Your task to perform on an android device: turn off wifi Image 0: 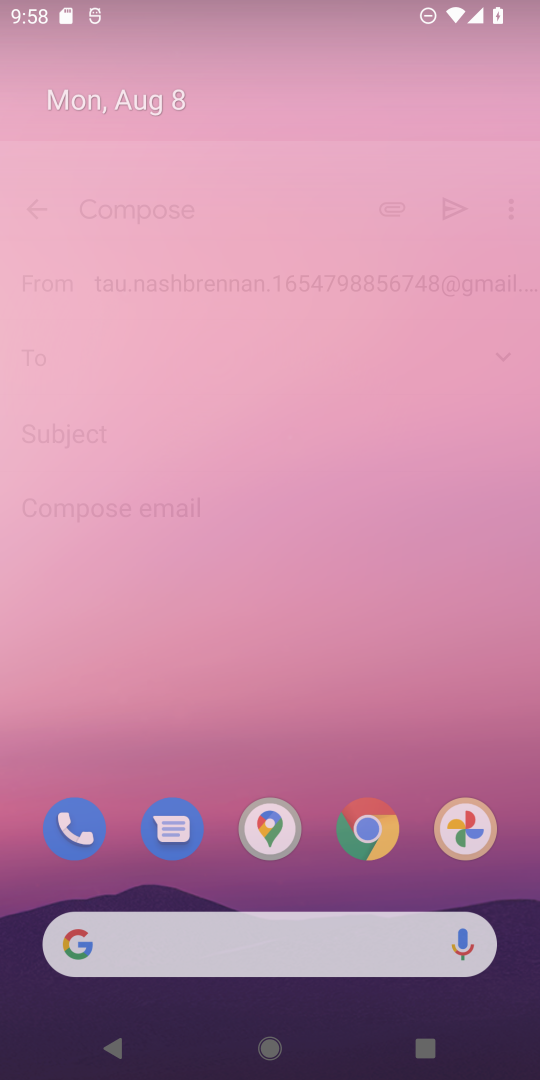
Step 0: press home button
Your task to perform on an android device: turn off wifi Image 1: 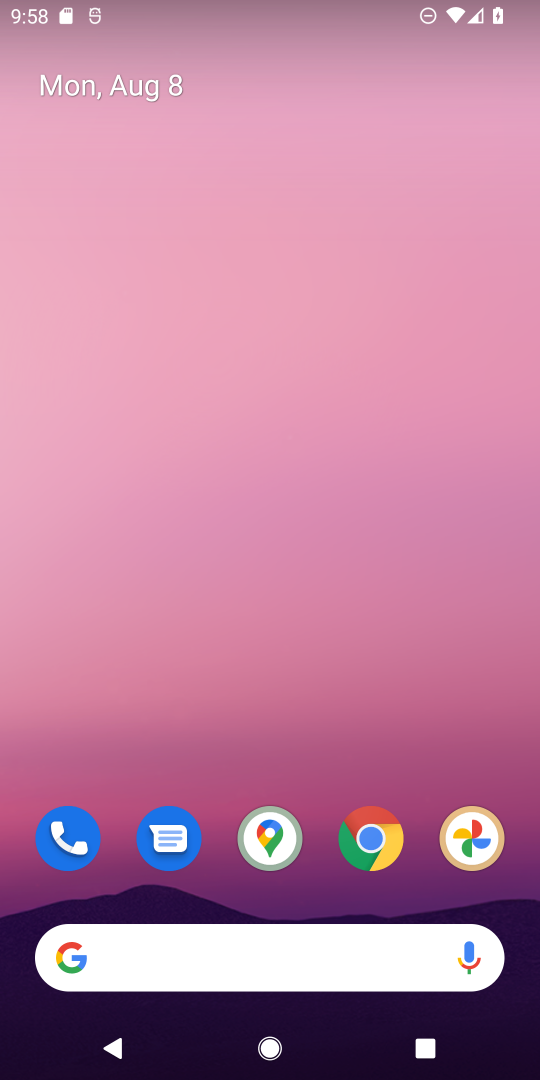
Step 1: drag from (202, 892) to (237, 134)
Your task to perform on an android device: turn off wifi Image 2: 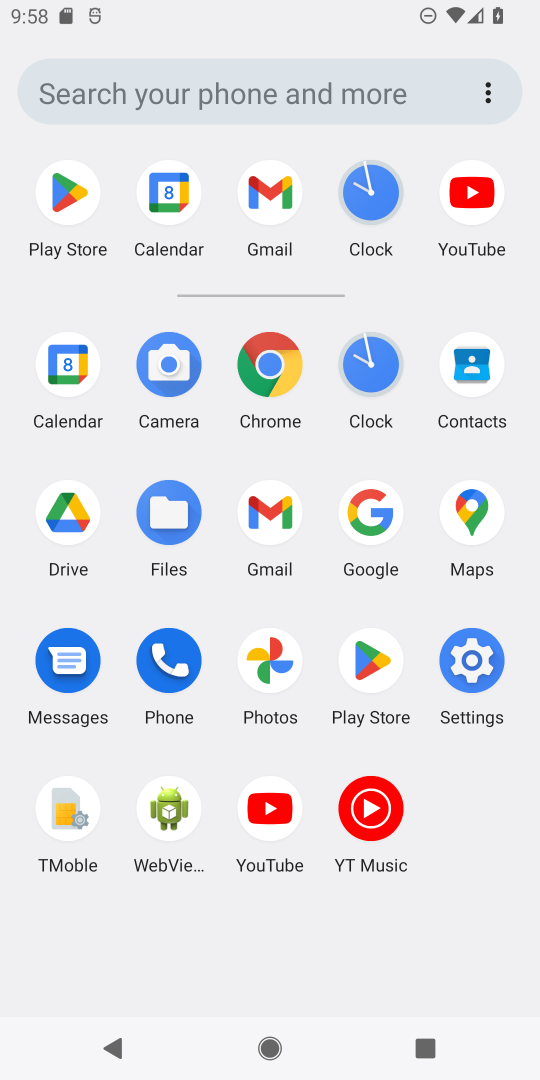
Step 2: click (470, 656)
Your task to perform on an android device: turn off wifi Image 3: 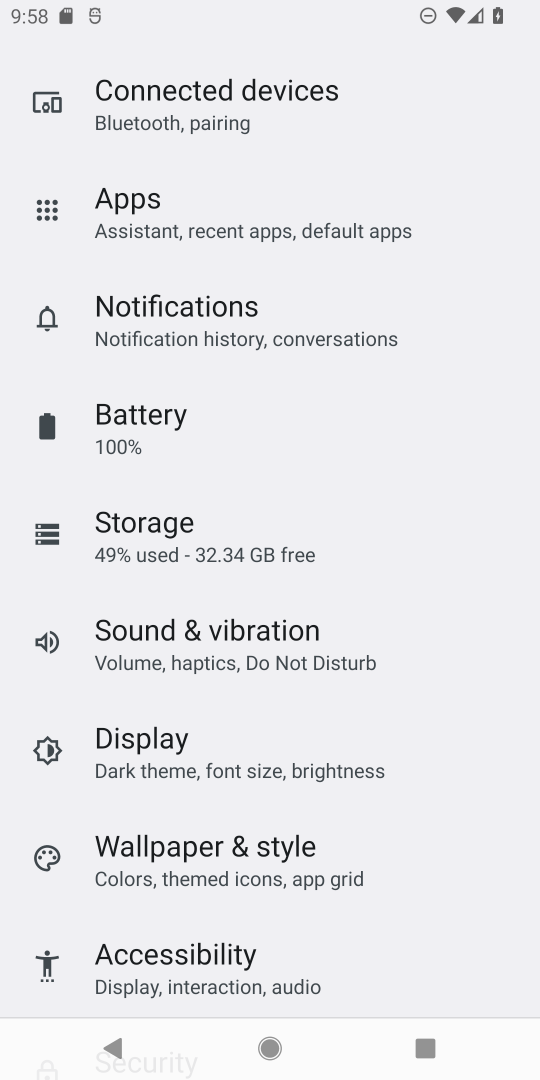
Step 3: drag from (392, 172) to (178, 999)
Your task to perform on an android device: turn off wifi Image 4: 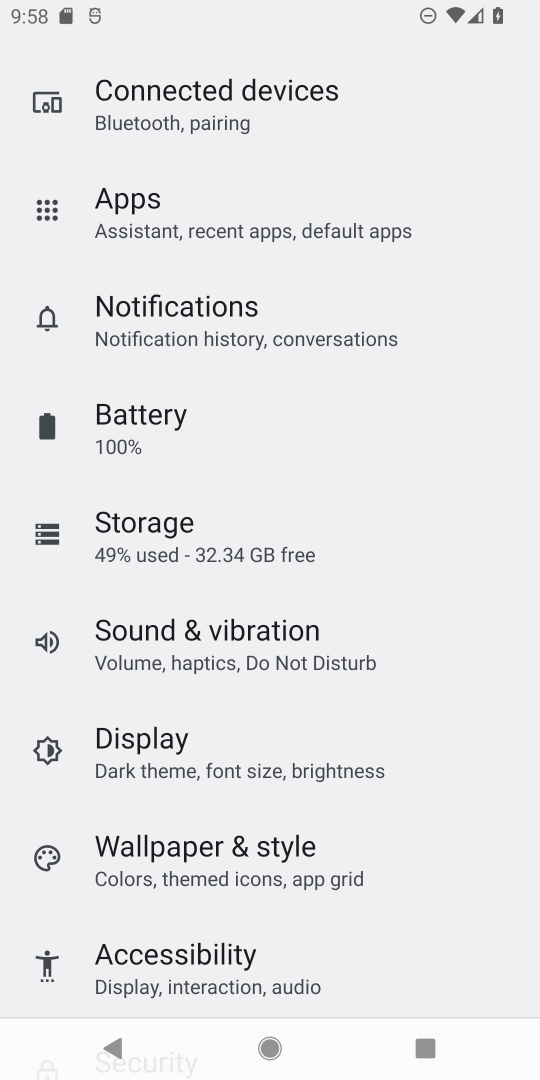
Step 4: drag from (401, 228) to (251, 998)
Your task to perform on an android device: turn off wifi Image 5: 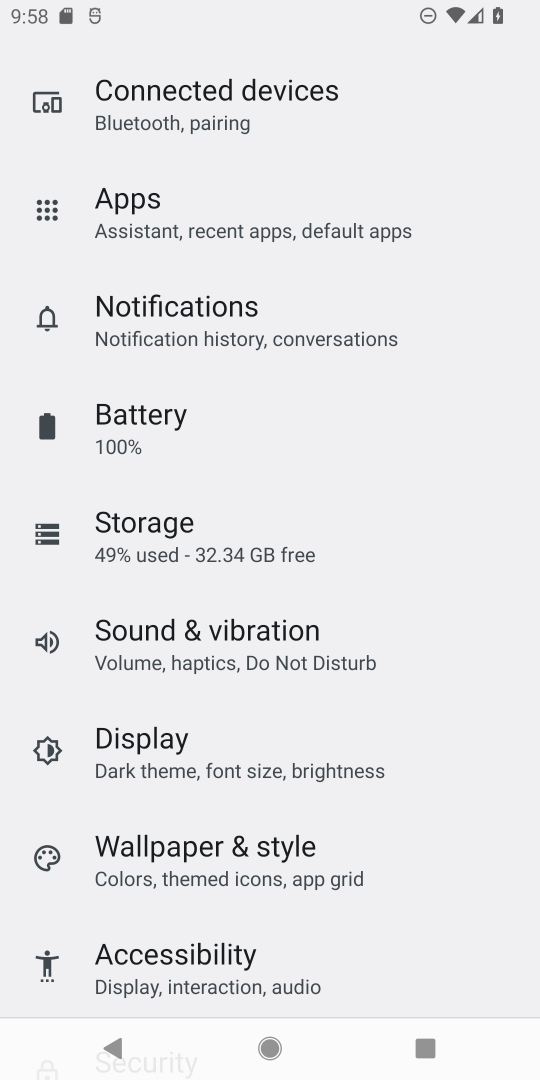
Step 5: drag from (351, 381) to (333, 1056)
Your task to perform on an android device: turn off wifi Image 6: 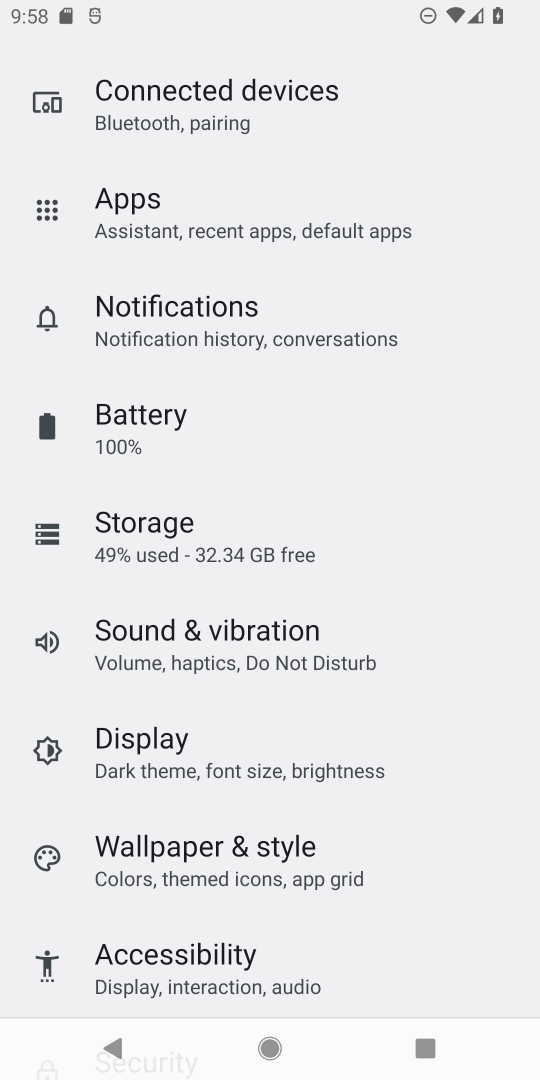
Step 6: drag from (360, 114) to (193, 1039)
Your task to perform on an android device: turn off wifi Image 7: 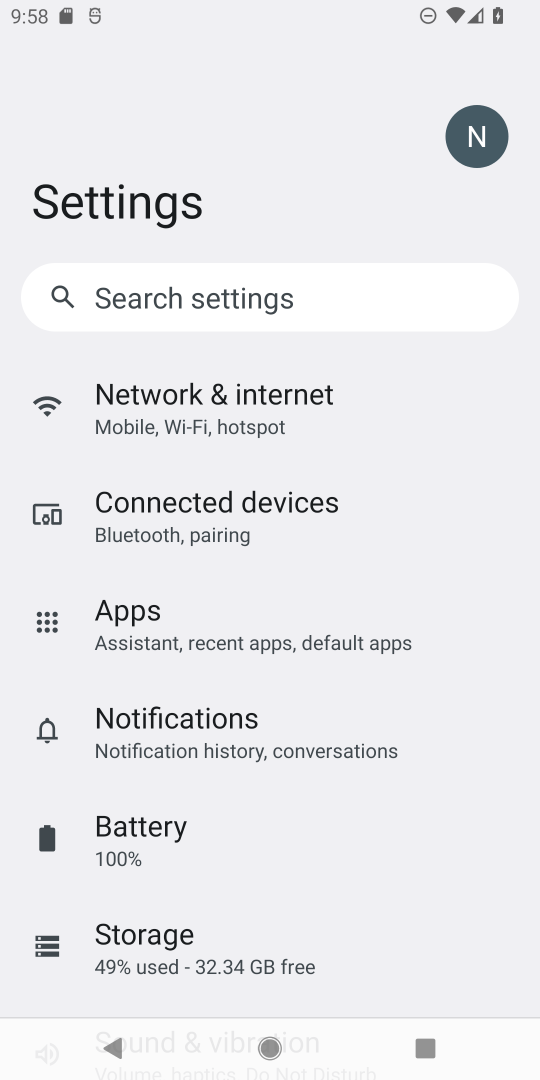
Step 7: click (195, 415)
Your task to perform on an android device: turn off wifi Image 8: 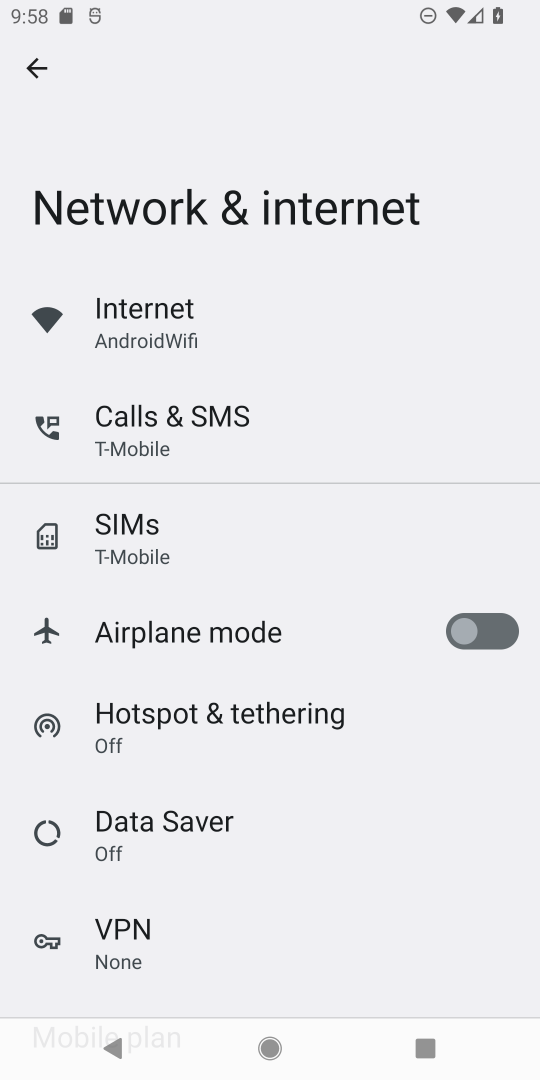
Step 8: click (136, 323)
Your task to perform on an android device: turn off wifi Image 9: 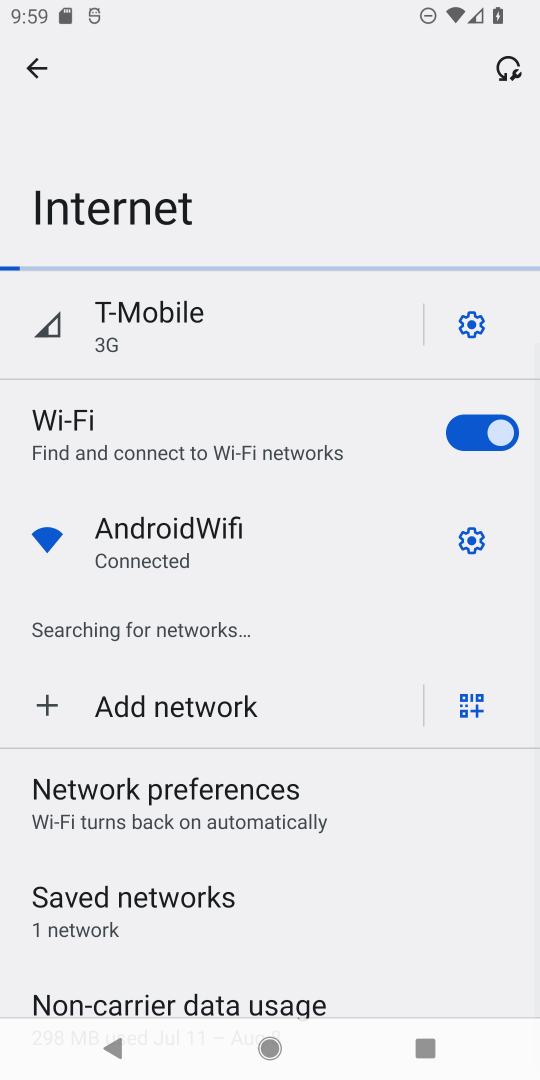
Step 9: click (495, 441)
Your task to perform on an android device: turn off wifi Image 10: 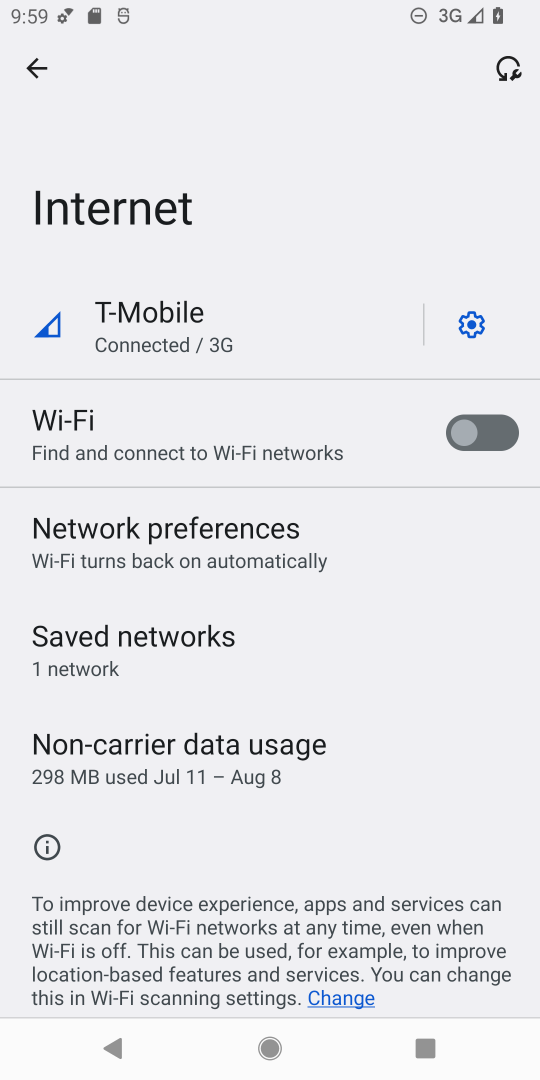
Step 10: task complete